Your task to perform on an android device: turn off javascript in the chrome app Image 0: 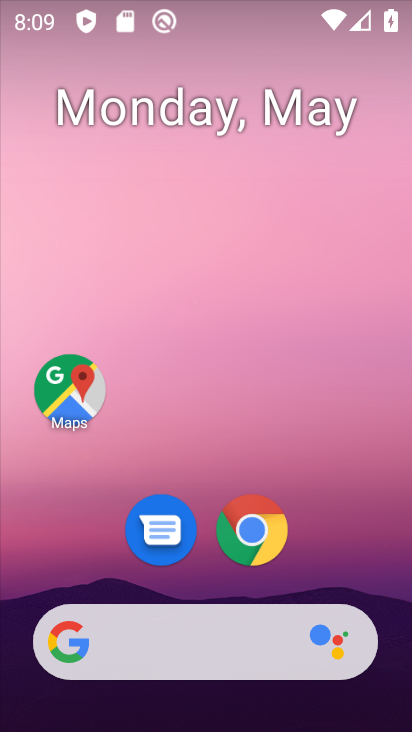
Step 0: click (255, 522)
Your task to perform on an android device: turn off javascript in the chrome app Image 1: 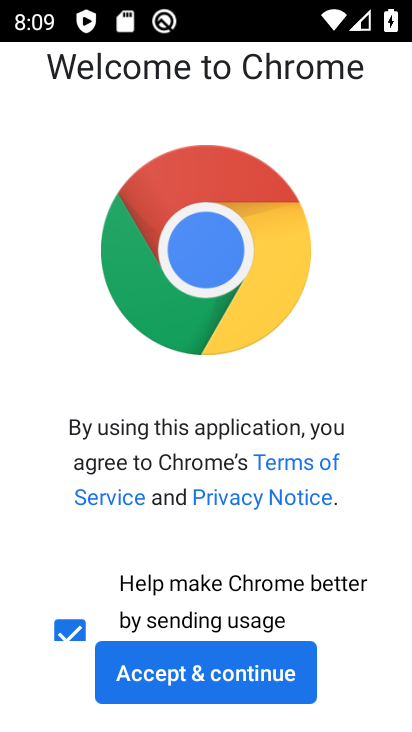
Step 1: click (201, 673)
Your task to perform on an android device: turn off javascript in the chrome app Image 2: 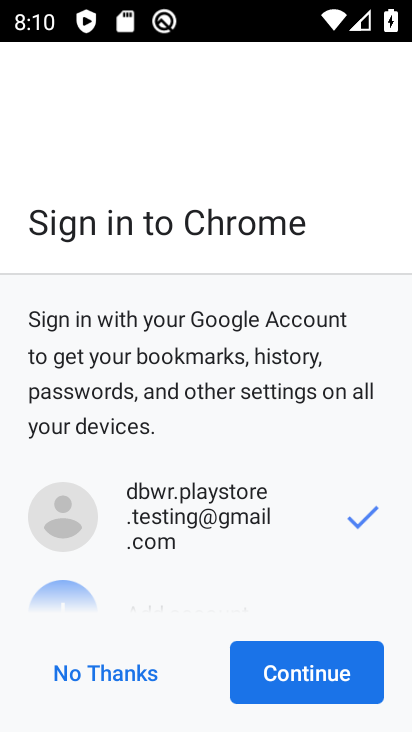
Step 2: click (276, 674)
Your task to perform on an android device: turn off javascript in the chrome app Image 3: 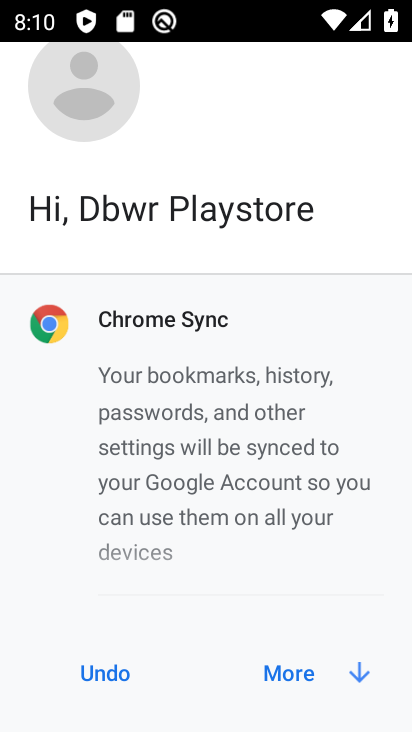
Step 3: click (276, 674)
Your task to perform on an android device: turn off javascript in the chrome app Image 4: 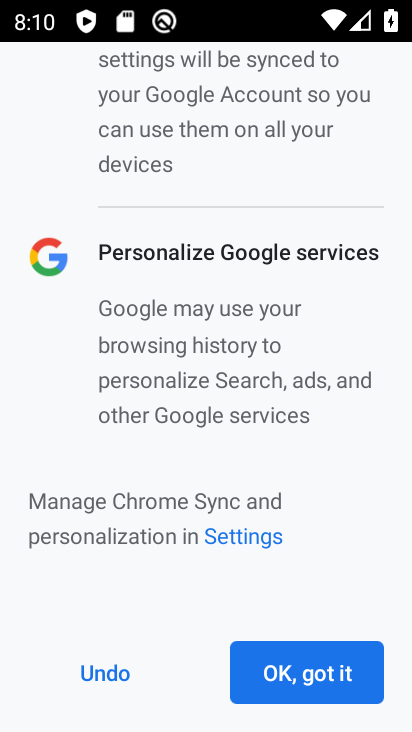
Step 4: click (319, 681)
Your task to perform on an android device: turn off javascript in the chrome app Image 5: 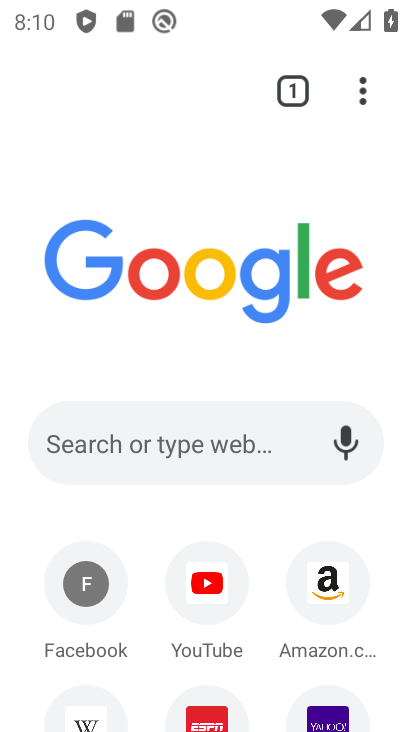
Step 5: click (363, 84)
Your task to perform on an android device: turn off javascript in the chrome app Image 6: 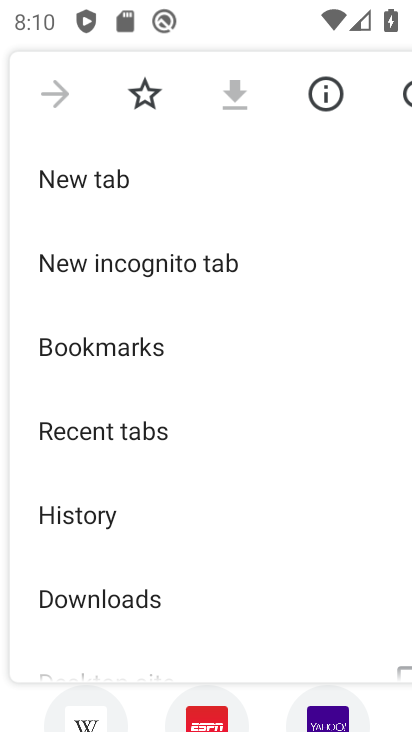
Step 6: drag from (249, 639) to (243, 127)
Your task to perform on an android device: turn off javascript in the chrome app Image 7: 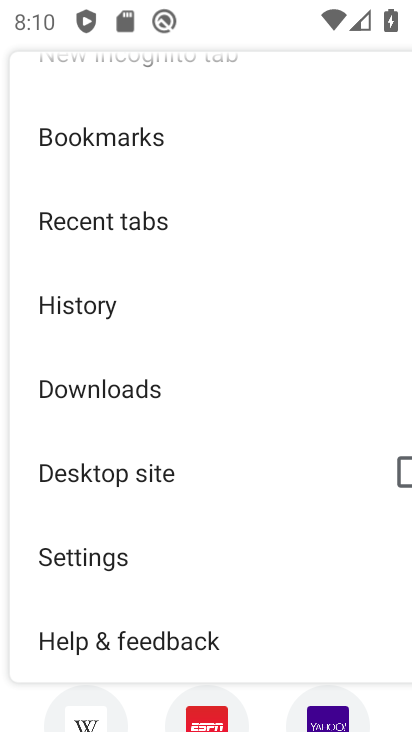
Step 7: click (148, 552)
Your task to perform on an android device: turn off javascript in the chrome app Image 8: 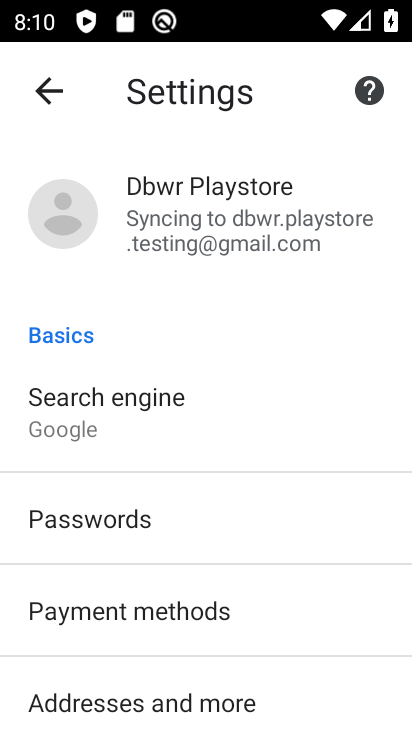
Step 8: drag from (224, 675) to (172, 97)
Your task to perform on an android device: turn off javascript in the chrome app Image 9: 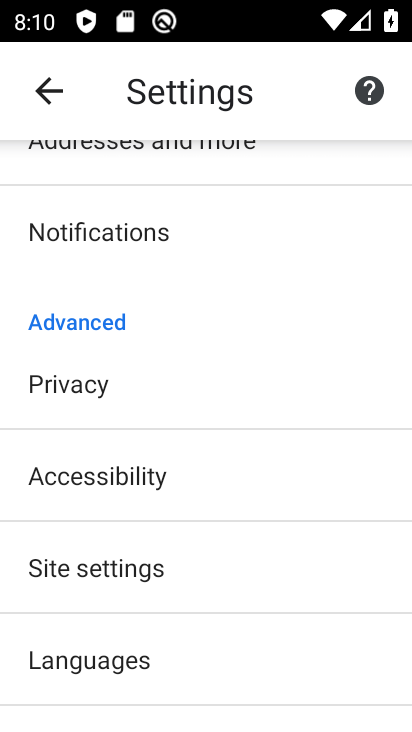
Step 9: click (192, 584)
Your task to perform on an android device: turn off javascript in the chrome app Image 10: 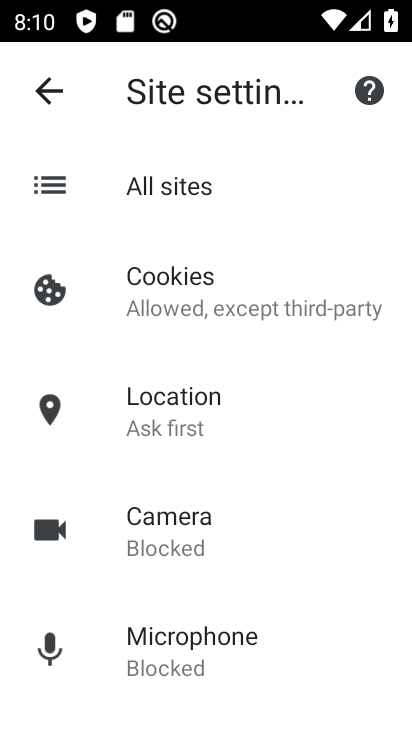
Step 10: drag from (250, 619) to (239, 161)
Your task to perform on an android device: turn off javascript in the chrome app Image 11: 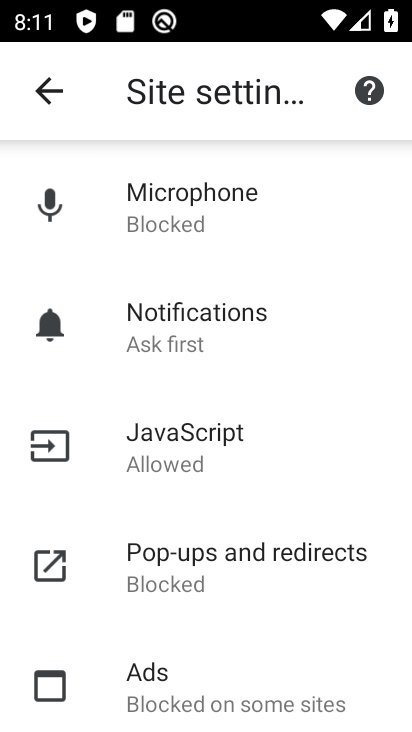
Step 11: click (244, 417)
Your task to perform on an android device: turn off javascript in the chrome app Image 12: 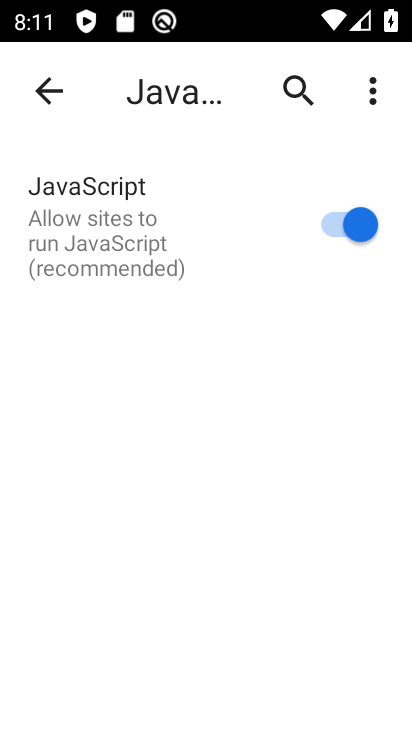
Step 12: click (335, 222)
Your task to perform on an android device: turn off javascript in the chrome app Image 13: 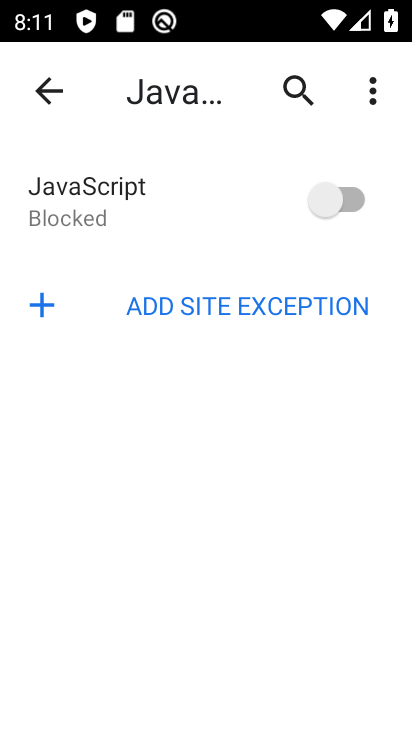
Step 13: task complete